Your task to perform on an android device: Open accessibility settings Image 0: 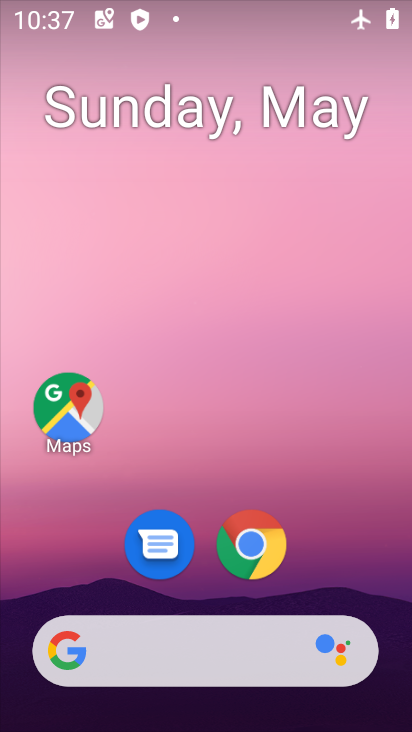
Step 0: drag from (331, 458) to (345, 221)
Your task to perform on an android device: Open accessibility settings Image 1: 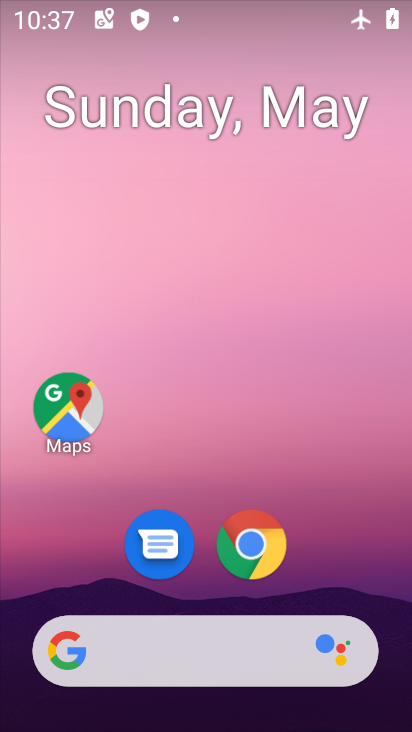
Step 1: drag from (301, 580) to (315, 200)
Your task to perform on an android device: Open accessibility settings Image 2: 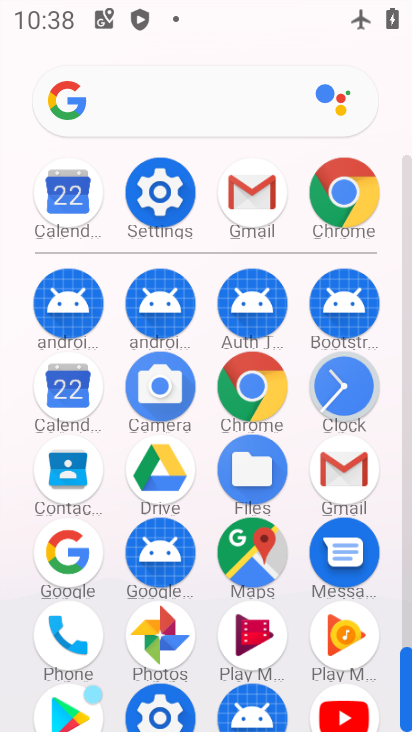
Step 2: click (157, 192)
Your task to perform on an android device: Open accessibility settings Image 3: 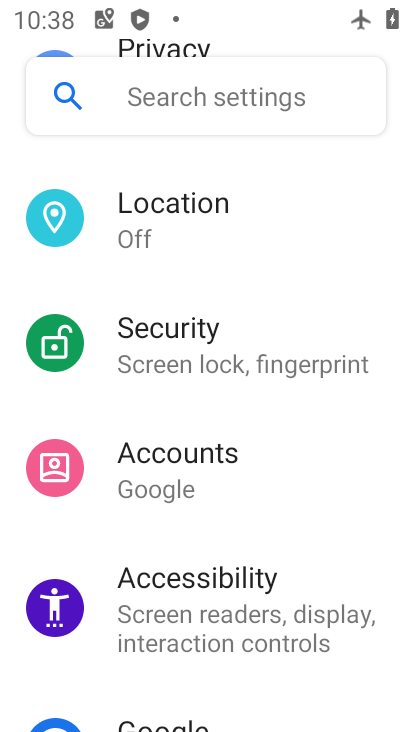
Step 3: drag from (280, 654) to (323, 359)
Your task to perform on an android device: Open accessibility settings Image 4: 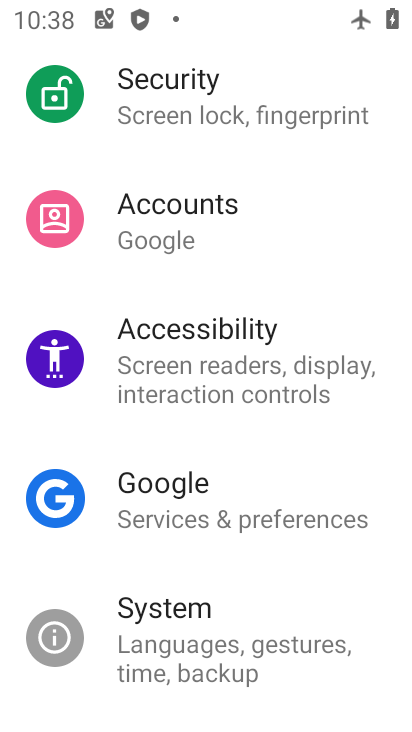
Step 4: click (150, 359)
Your task to perform on an android device: Open accessibility settings Image 5: 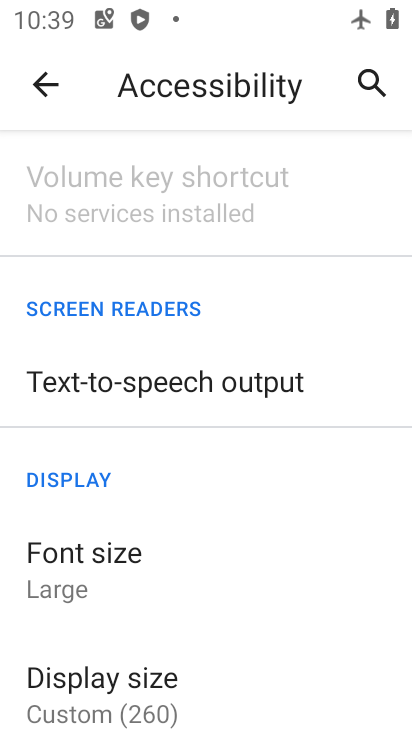
Step 5: task complete